Your task to perform on an android device: change the clock display to digital Image 0: 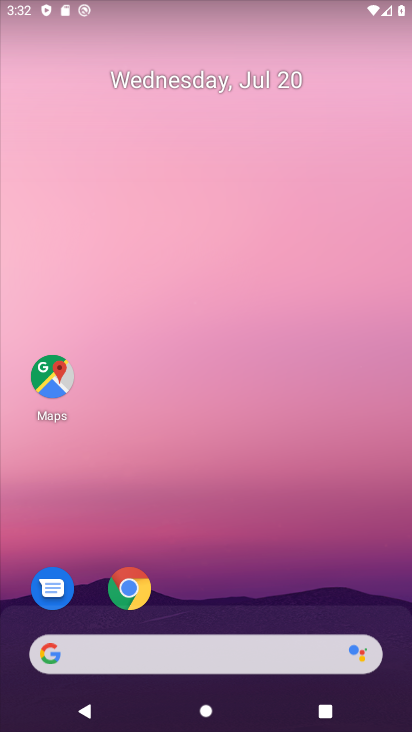
Step 0: drag from (240, 311) to (260, 176)
Your task to perform on an android device: change the clock display to digital Image 1: 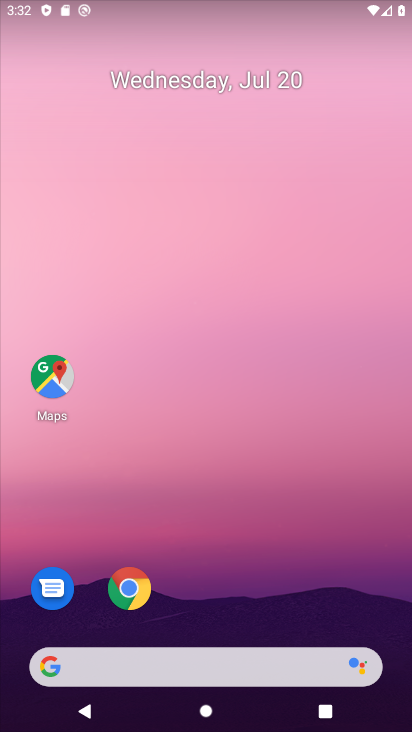
Step 1: drag from (196, 555) to (271, 205)
Your task to perform on an android device: change the clock display to digital Image 2: 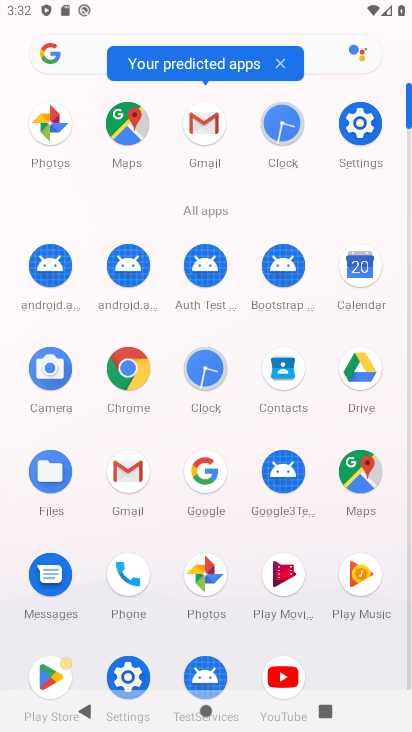
Step 2: click (201, 376)
Your task to perform on an android device: change the clock display to digital Image 3: 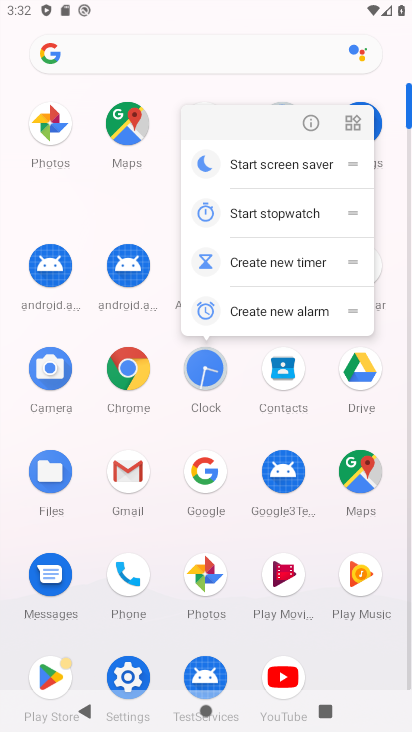
Step 3: click (312, 104)
Your task to perform on an android device: change the clock display to digital Image 4: 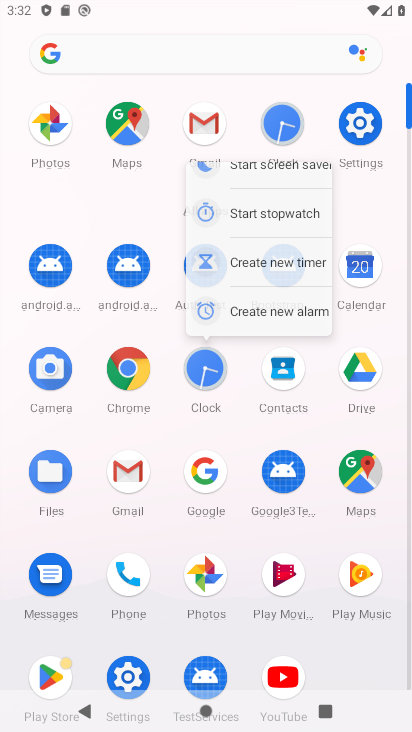
Step 4: click (311, 114)
Your task to perform on an android device: change the clock display to digital Image 5: 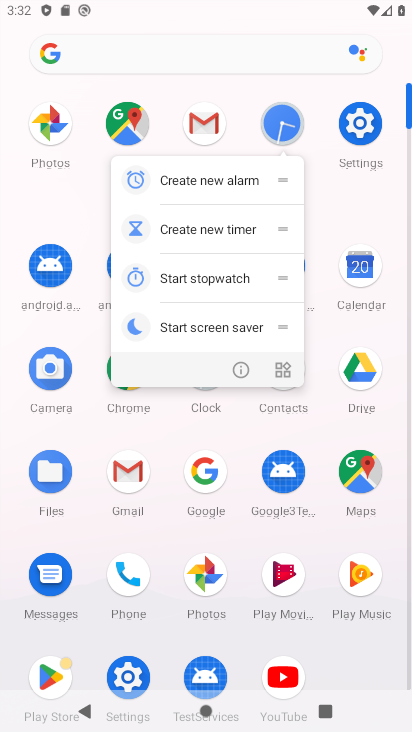
Step 5: click (245, 364)
Your task to perform on an android device: change the clock display to digital Image 6: 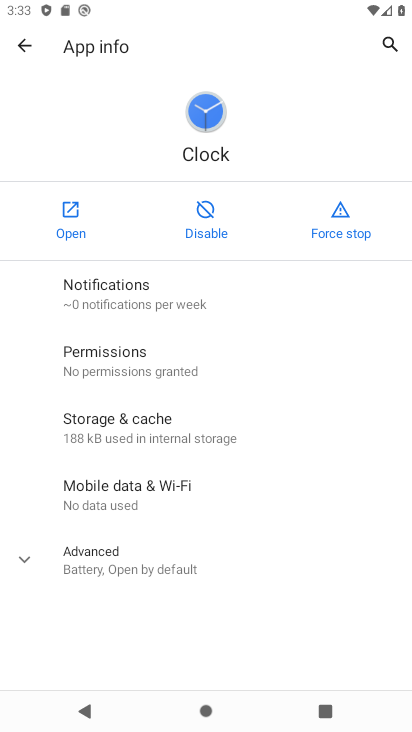
Step 6: click (73, 204)
Your task to perform on an android device: change the clock display to digital Image 7: 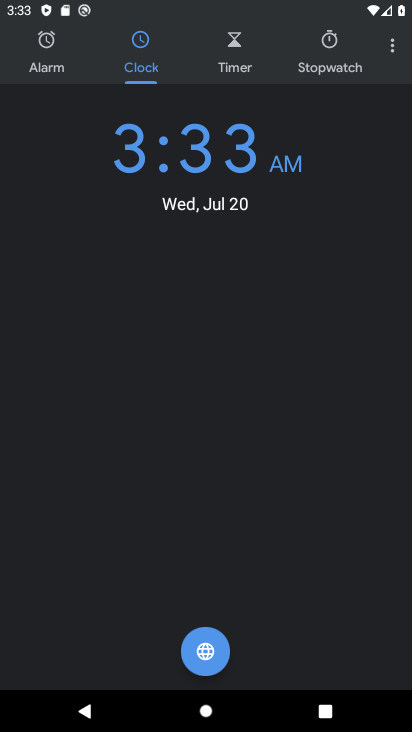
Step 7: drag from (391, 49) to (291, 86)
Your task to perform on an android device: change the clock display to digital Image 8: 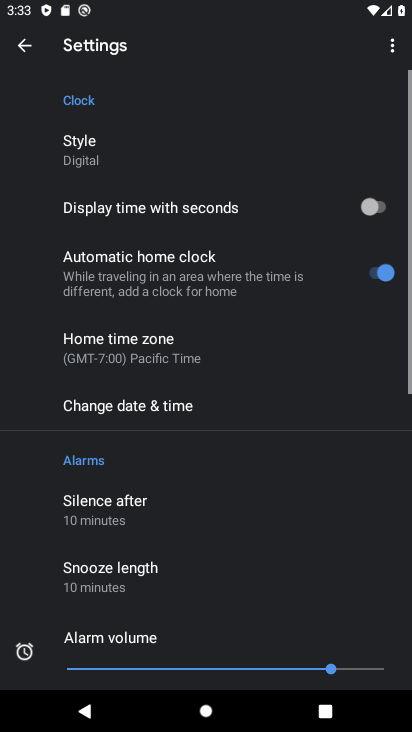
Step 8: click (138, 147)
Your task to perform on an android device: change the clock display to digital Image 9: 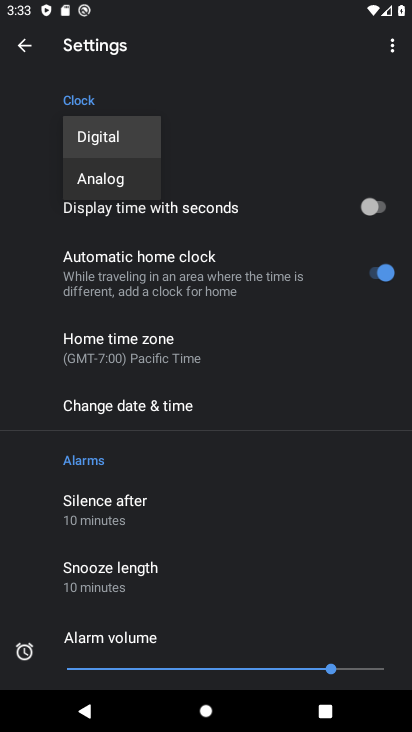
Step 9: click (102, 145)
Your task to perform on an android device: change the clock display to digital Image 10: 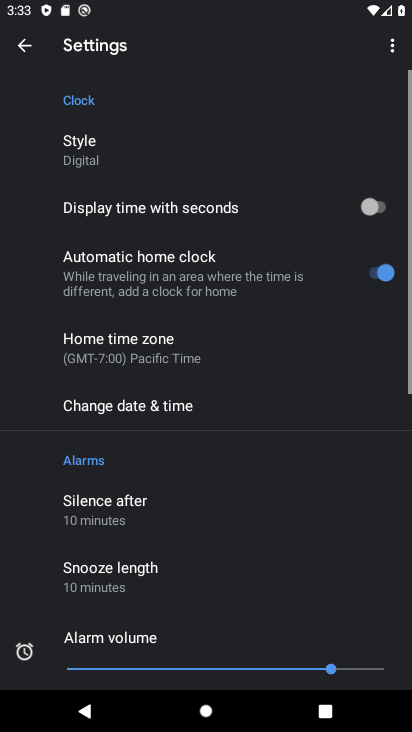
Step 10: task complete